Your task to perform on an android device: Open location settings Image 0: 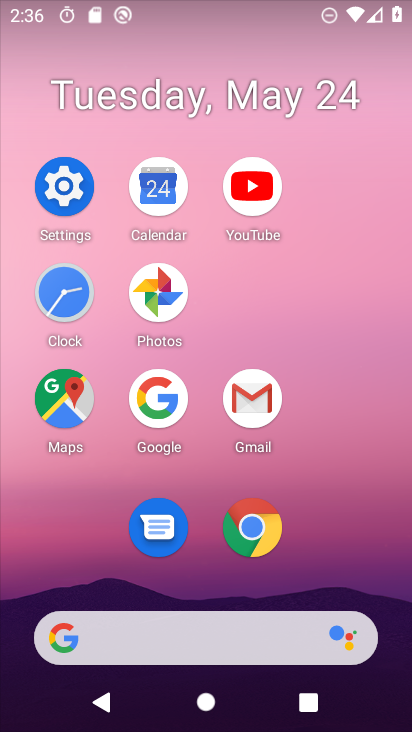
Step 0: click (76, 169)
Your task to perform on an android device: Open location settings Image 1: 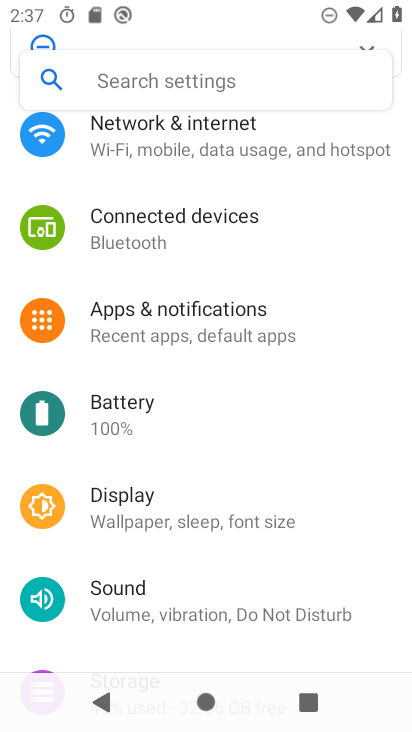
Step 1: drag from (260, 599) to (318, 273)
Your task to perform on an android device: Open location settings Image 2: 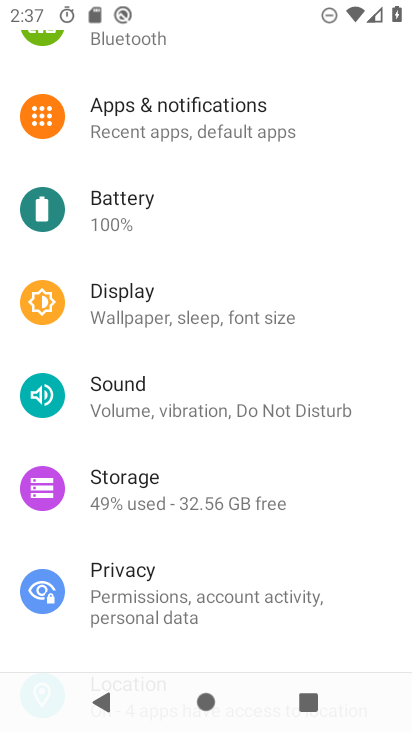
Step 2: drag from (251, 554) to (303, 286)
Your task to perform on an android device: Open location settings Image 3: 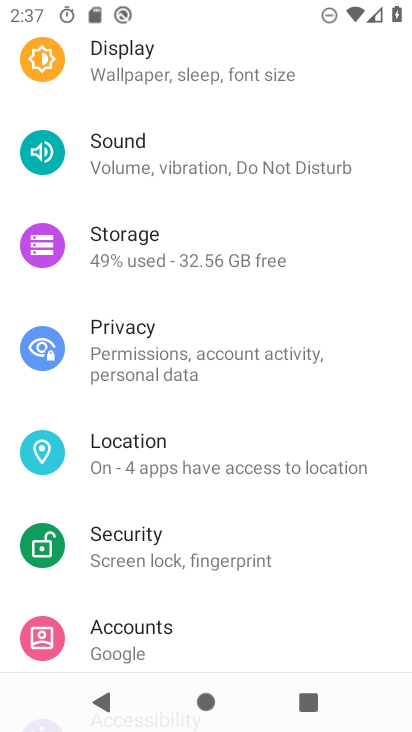
Step 3: click (245, 474)
Your task to perform on an android device: Open location settings Image 4: 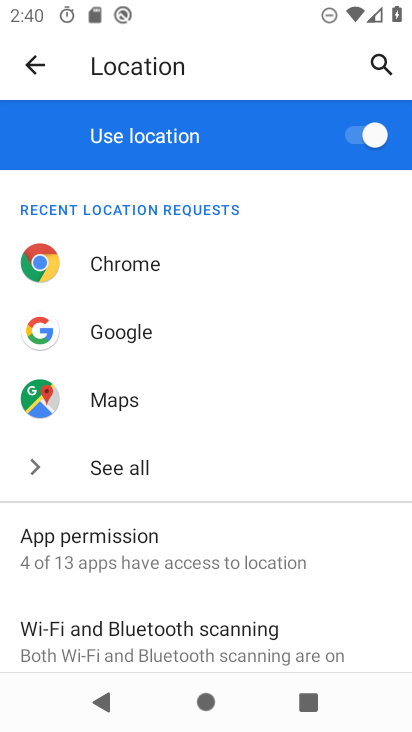
Step 4: task complete